Your task to perform on an android device: Search for sushi restaurants on Maps Image 0: 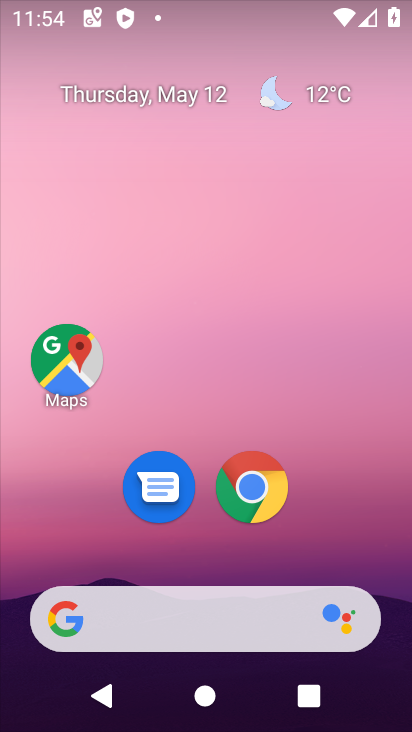
Step 0: click (63, 365)
Your task to perform on an android device: Search for sushi restaurants on Maps Image 1: 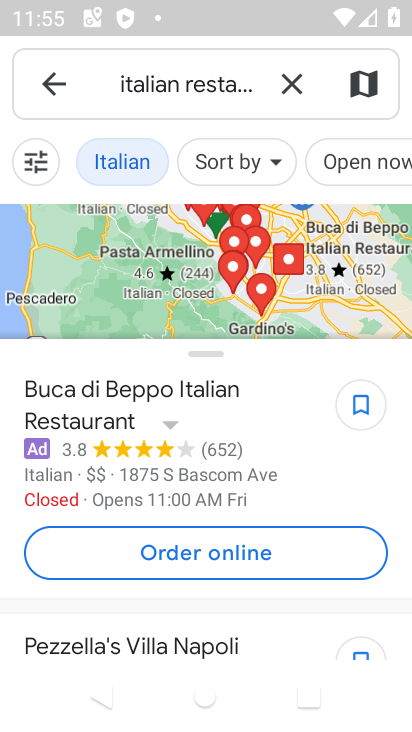
Step 1: click (286, 91)
Your task to perform on an android device: Search for sushi restaurants on Maps Image 2: 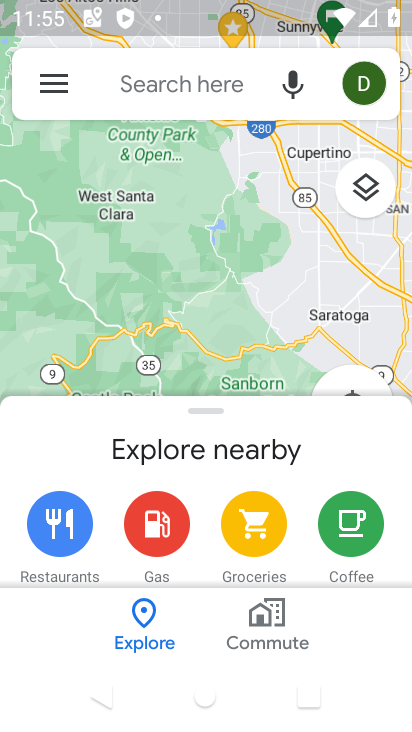
Step 2: click (137, 87)
Your task to perform on an android device: Search for sushi restaurants on Maps Image 3: 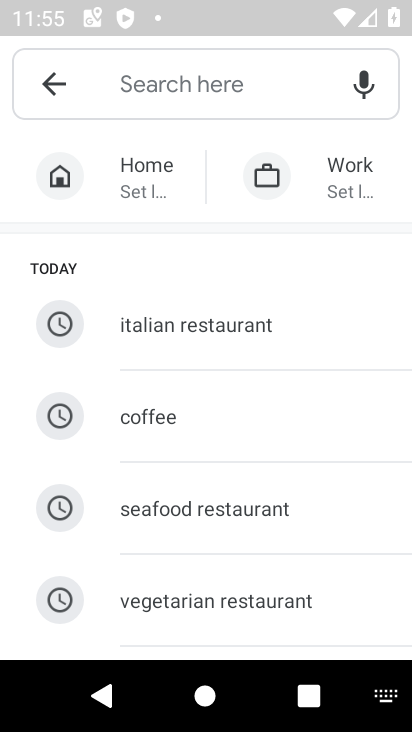
Step 3: type "sushi restaurant "
Your task to perform on an android device: Search for sushi restaurants on Maps Image 4: 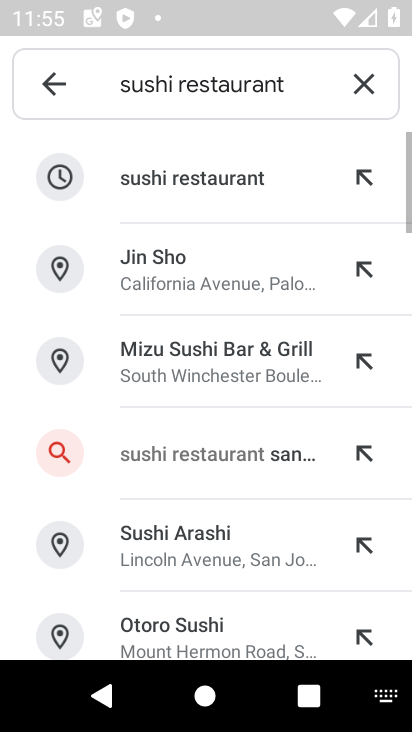
Step 4: click (144, 180)
Your task to perform on an android device: Search for sushi restaurants on Maps Image 5: 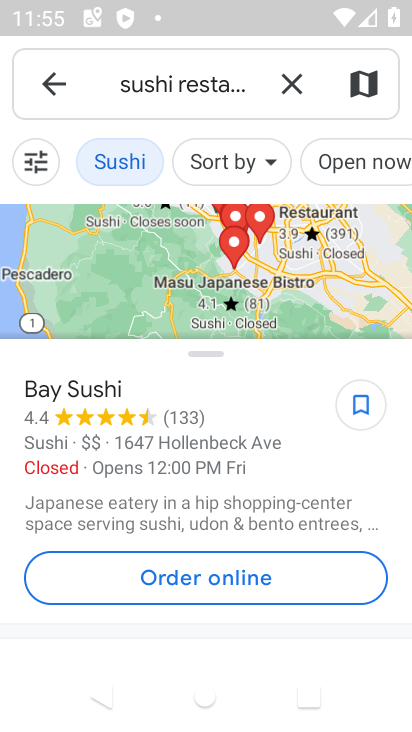
Step 5: task complete